Your task to perform on an android device: turn off data saver in the chrome app Image 0: 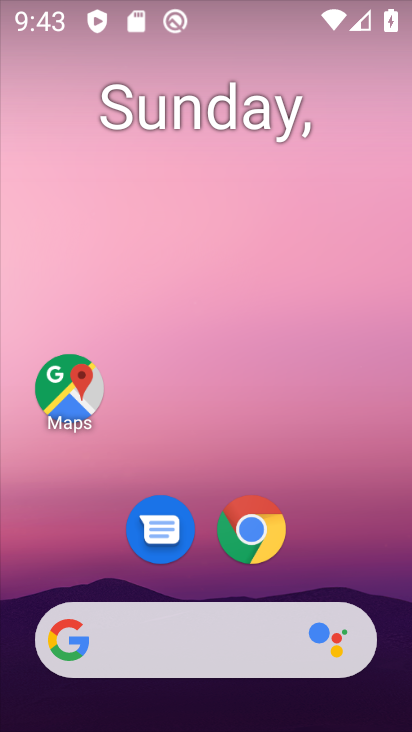
Step 0: click (272, 544)
Your task to perform on an android device: turn off data saver in the chrome app Image 1: 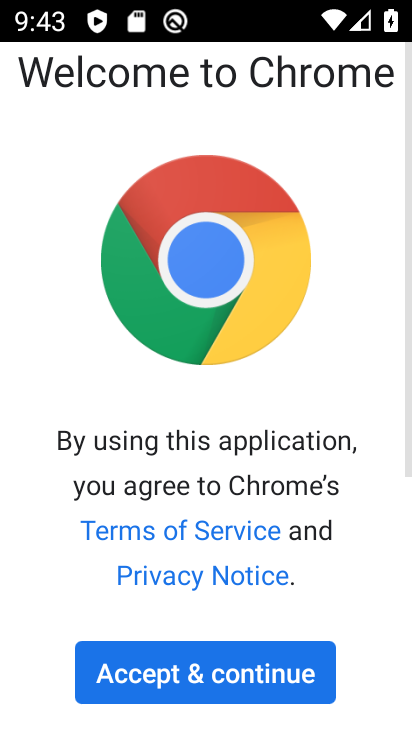
Step 1: click (256, 667)
Your task to perform on an android device: turn off data saver in the chrome app Image 2: 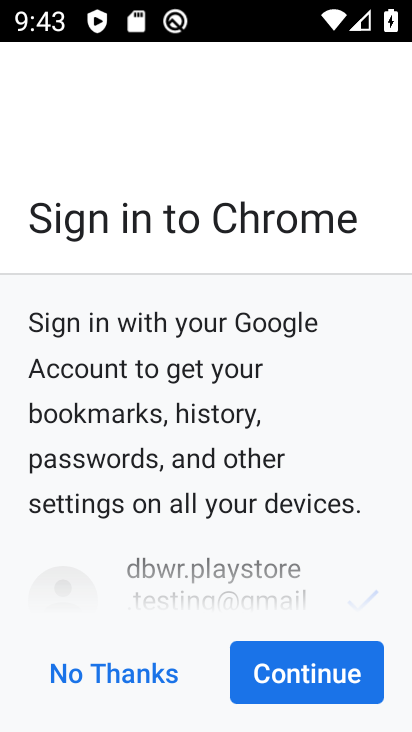
Step 2: click (327, 663)
Your task to perform on an android device: turn off data saver in the chrome app Image 3: 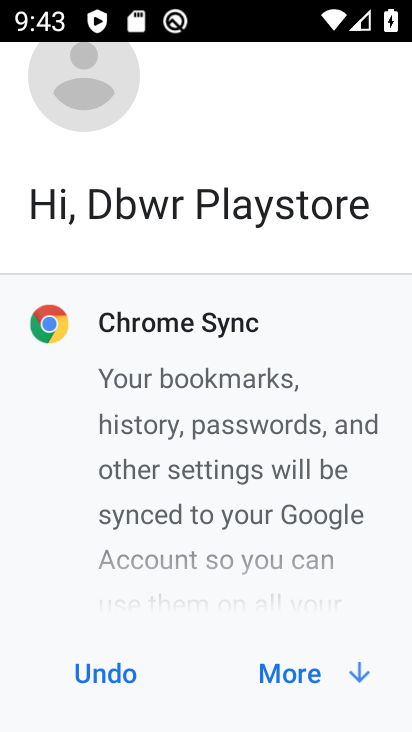
Step 3: click (288, 666)
Your task to perform on an android device: turn off data saver in the chrome app Image 4: 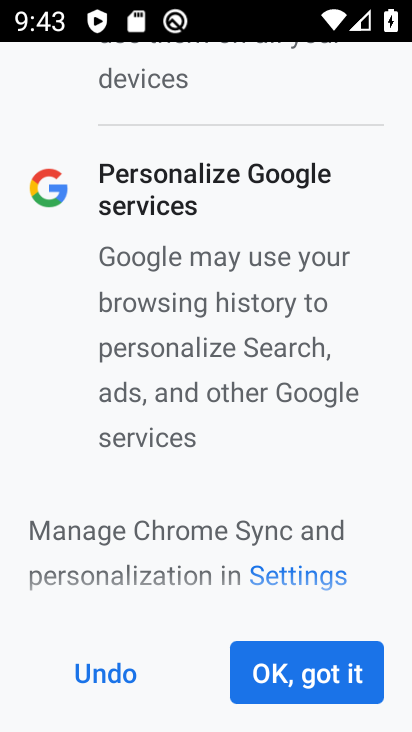
Step 4: click (353, 676)
Your task to perform on an android device: turn off data saver in the chrome app Image 5: 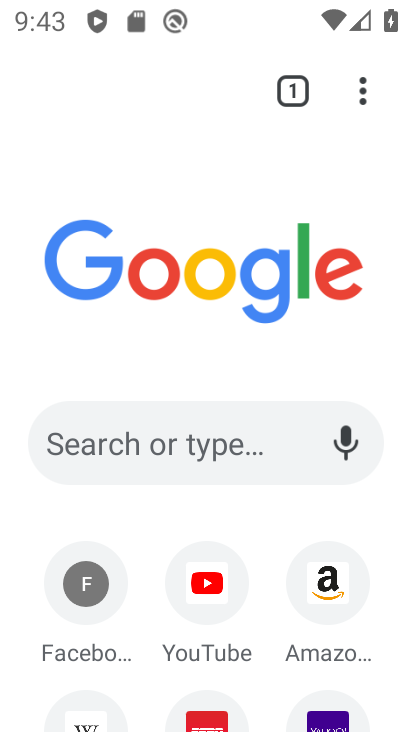
Step 5: task complete